Your task to perform on an android device: open the mobile data screen to see how much data has been used Image 0: 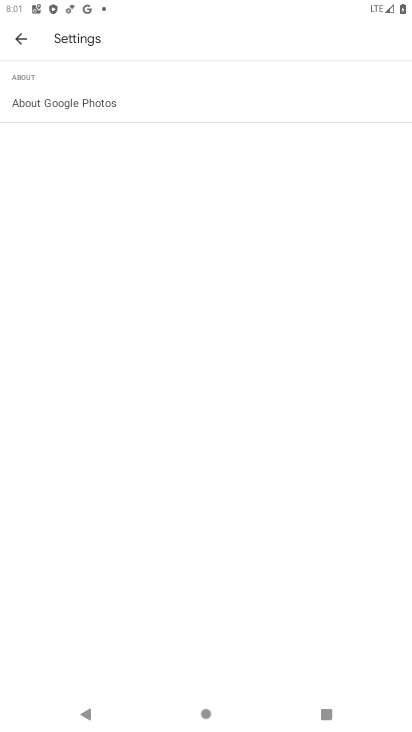
Step 0: click (22, 34)
Your task to perform on an android device: open the mobile data screen to see how much data has been used Image 1: 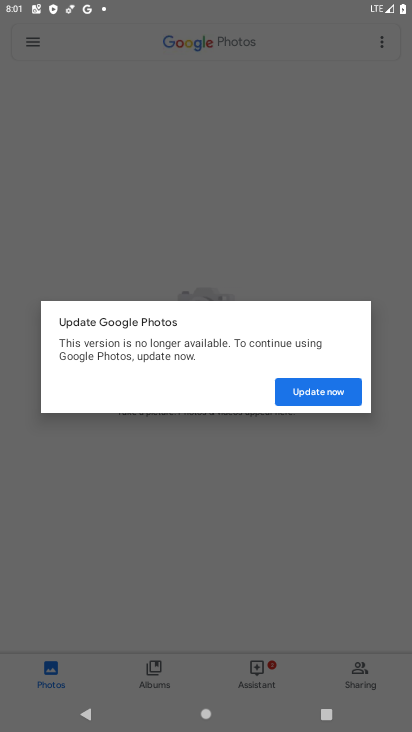
Step 1: click (289, 469)
Your task to perform on an android device: open the mobile data screen to see how much data has been used Image 2: 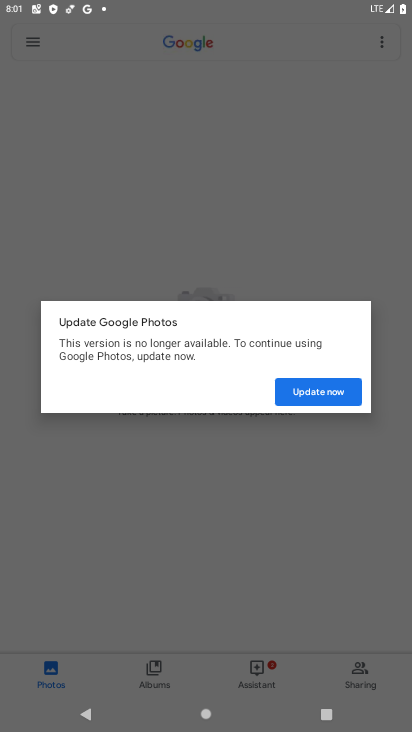
Step 2: click (287, 470)
Your task to perform on an android device: open the mobile data screen to see how much data has been used Image 3: 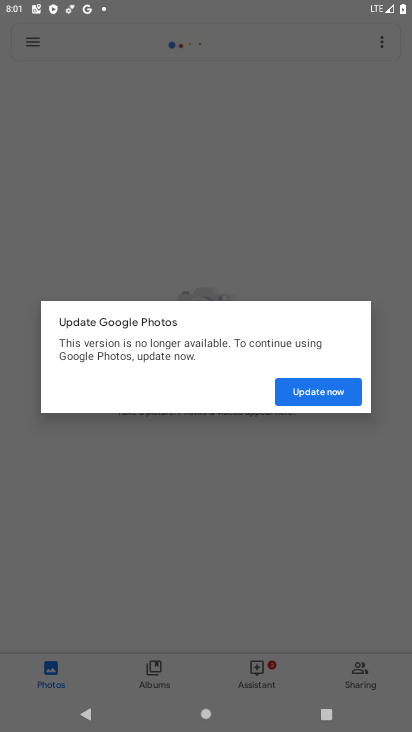
Step 3: click (287, 470)
Your task to perform on an android device: open the mobile data screen to see how much data has been used Image 4: 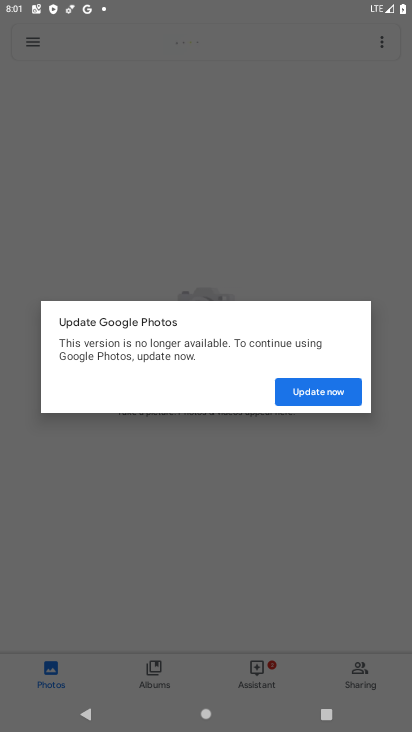
Step 4: click (287, 470)
Your task to perform on an android device: open the mobile data screen to see how much data has been used Image 5: 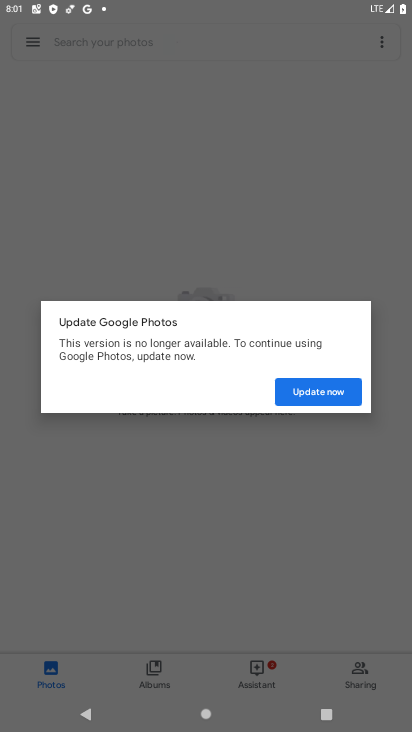
Step 5: click (286, 469)
Your task to perform on an android device: open the mobile data screen to see how much data has been used Image 6: 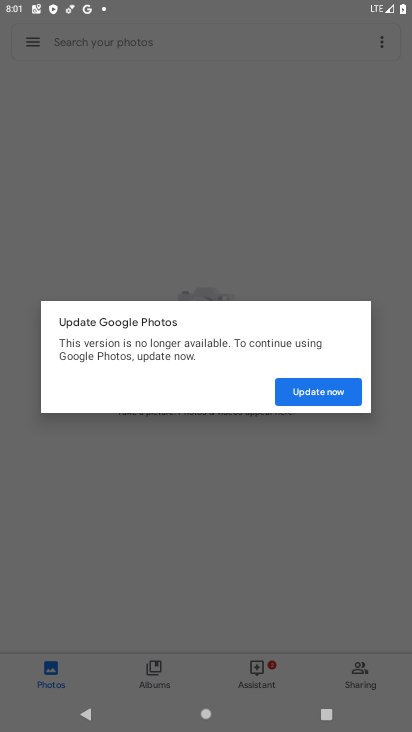
Step 6: press back button
Your task to perform on an android device: open the mobile data screen to see how much data has been used Image 7: 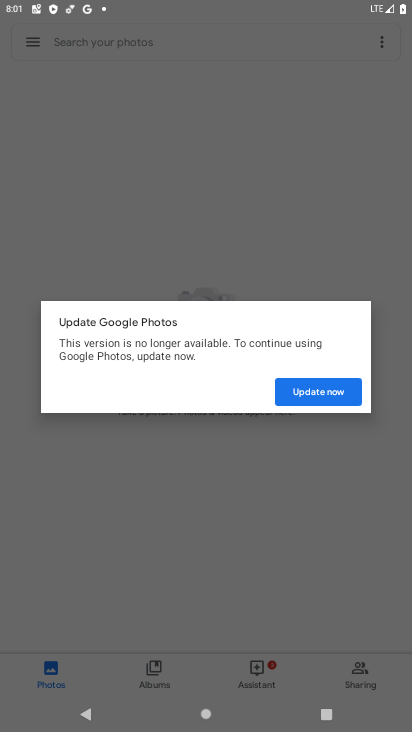
Step 7: click (212, 198)
Your task to perform on an android device: open the mobile data screen to see how much data has been used Image 8: 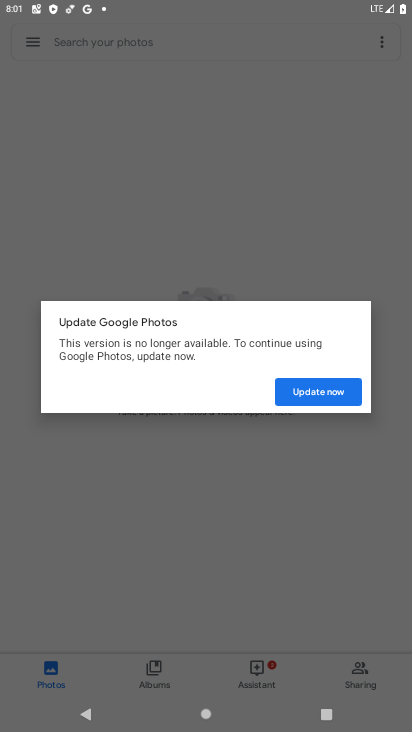
Step 8: click (211, 197)
Your task to perform on an android device: open the mobile data screen to see how much data has been used Image 9: 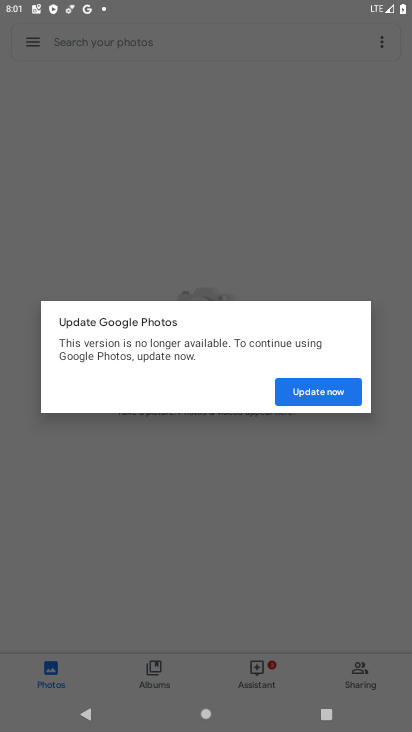
Step 9: click (211, 197)
Your task to perform on an android device: open the mobile data screen to see how much data has been used Image 10: 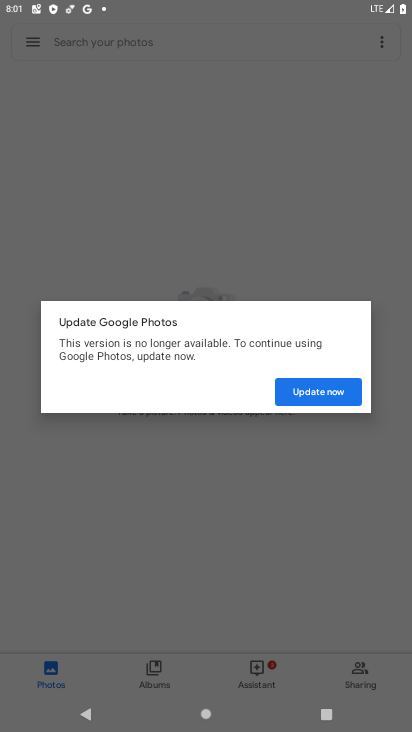
Step 10: click (210, 197)
Your task to perform on an android device: open the mobile data screen to see how much data has been used Image 11: 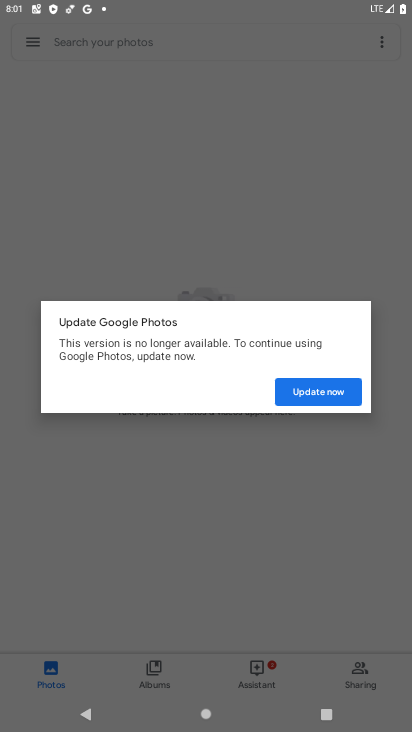
Step 11: press home button
Your task to perform on an android device: open the mobile data screen to see how much data has been used Image 12: 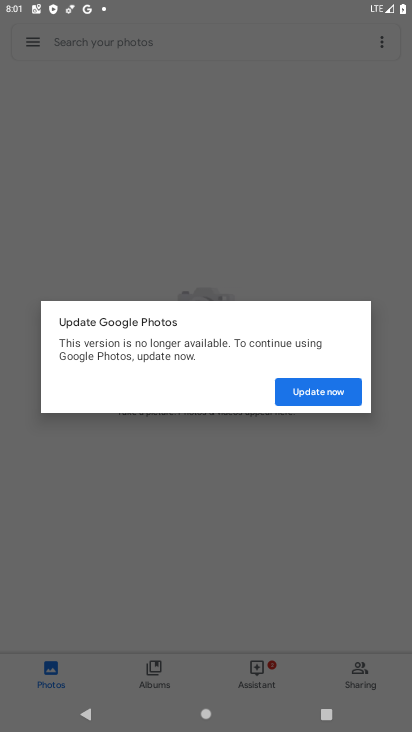
Step 12: press home button
Your task to perform on an android device: open the mobile data screen to see how much data has been used Image 13: 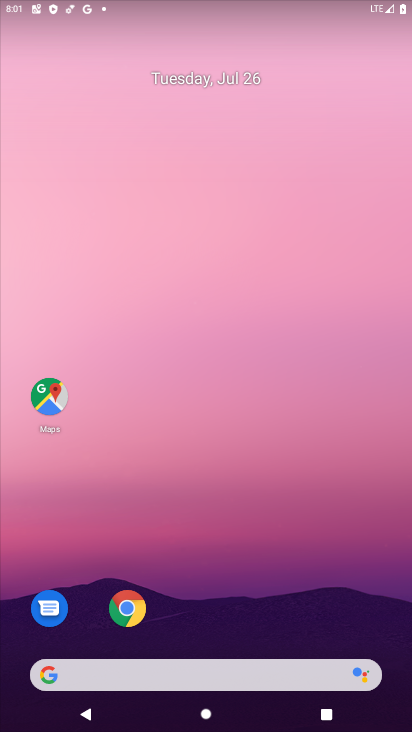
Step 13: drag from (255, 579) to (170, 153)
Your task to perform on an android device: open the mobile data screen to see how much data has been used Image 14: 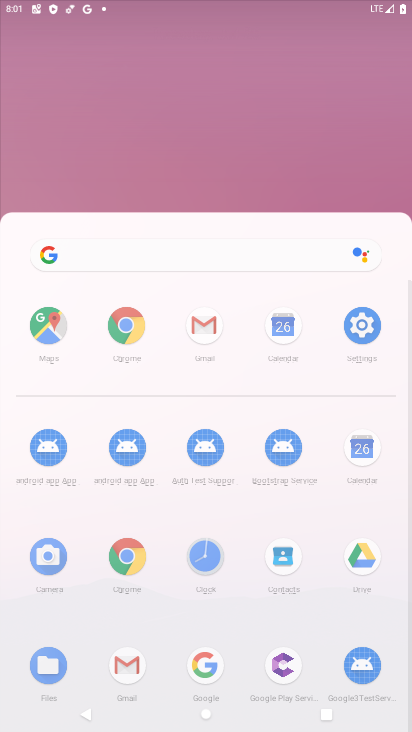
Step 14: drag from (219, 496) to (219, 148)
Your task to perform on an android device: open the mobile data screen to see how much data has been used Image 15: 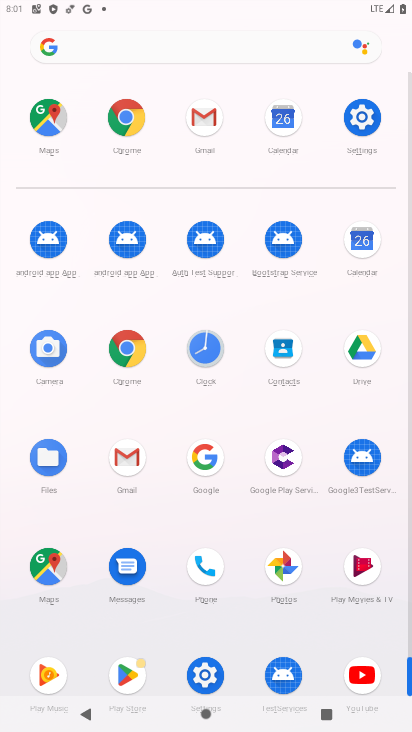
Step 15: click (361, 113)
Your task to perform on an android device: open the mobile data screen to see how much data has been used Image 16: 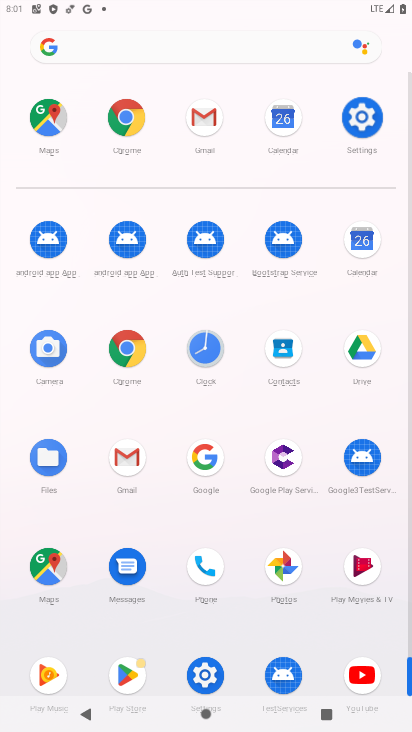
Step 16: click (362, 113)
Your task to perform on an android device: open the mobile data screen to see how much data has been used Image 17: 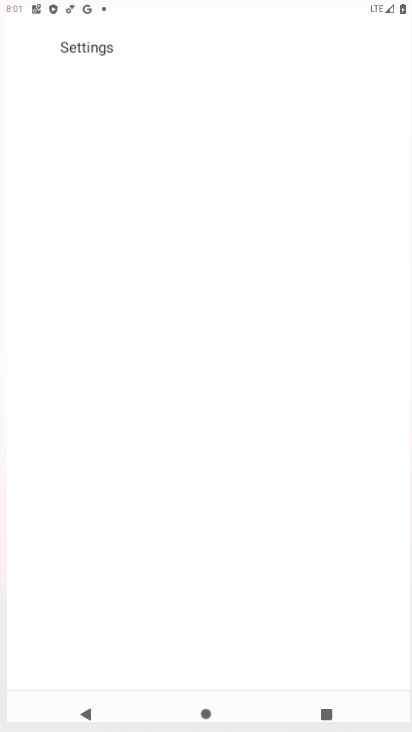
Step 17: click (362, 113)
Your task to perform on an android device: open the mobile data screen to see how much data has been used Image 18: 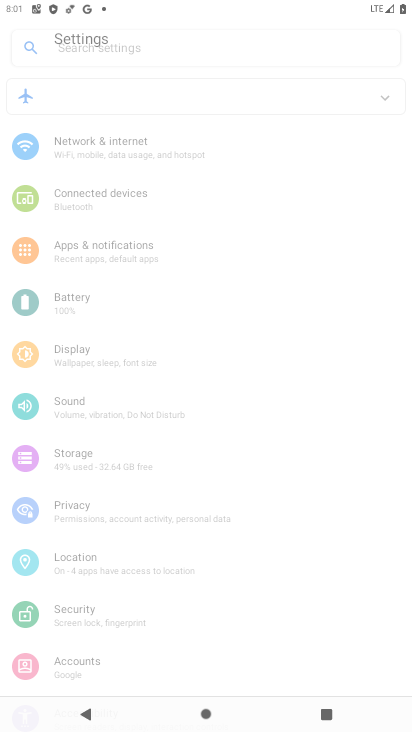
Step 18: click (362, 113)
Your task to perform on an android device: open the mobile data screen to see how much data has been used Image 19: 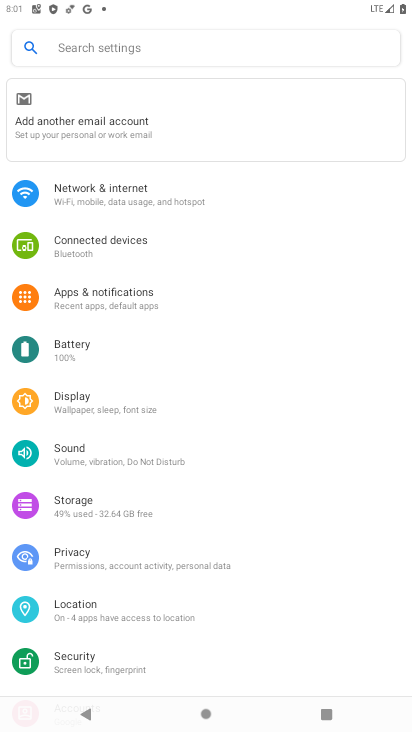
Step 19: click (97, 193)
Your task to perform on an android device: open the mobile data screen to see how much data has been used Image 20: 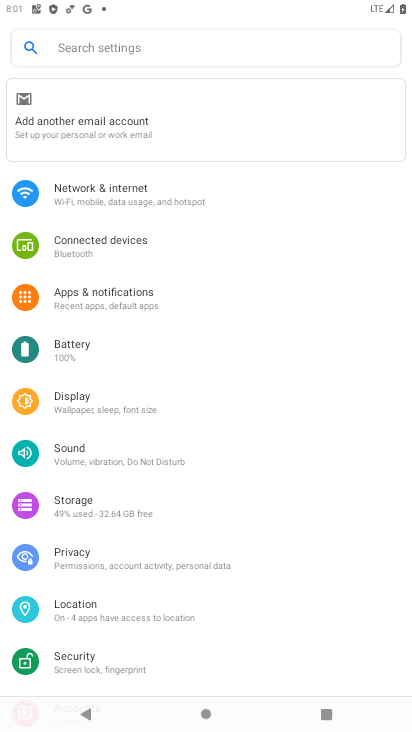
Step 20: click (95, 197)
Your task to perform on an android device: open the mobile data screen to see how much data has been used Image 21: 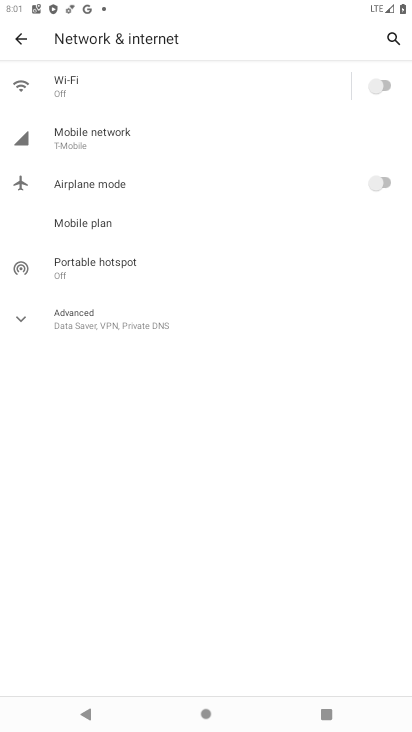
Step 21: click (63, 137)
Your task to perform on an android device: open the mobile data screen to see how much data has been used Image 22: 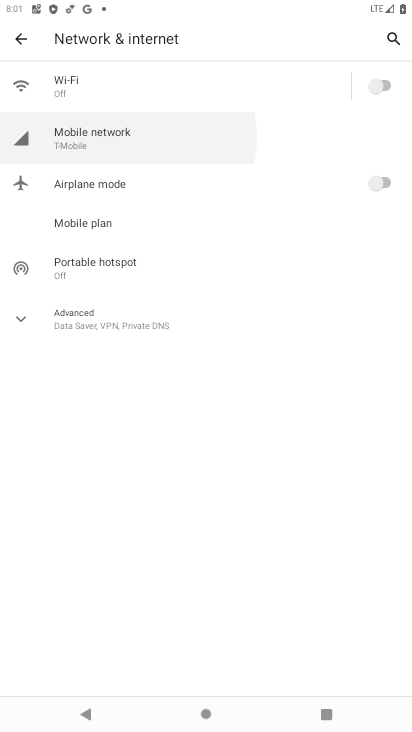
Step 22: click (62, 135)
Your task to perform on an android device: open the mobile data screen to see how much data has been used Image 23: 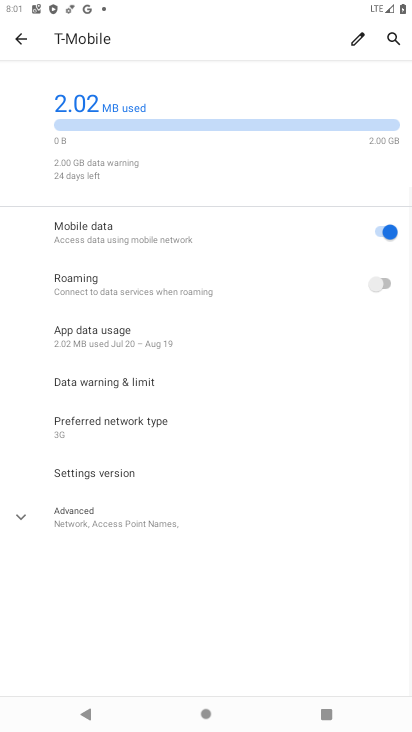
Step 23: click (19, 36)
Your task to perform on an android device: open the mobile data screen to see how much data has been used Image 24: 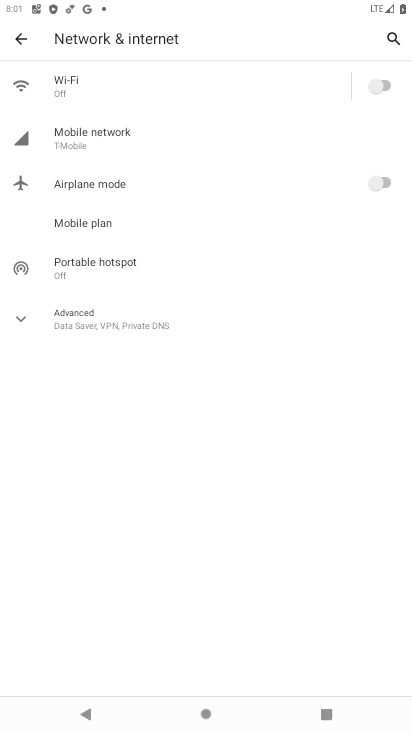
Step 24: click (375, 84)
Your task to perform on an android device: open the mobile data screen to see how much data has been used Image 25: 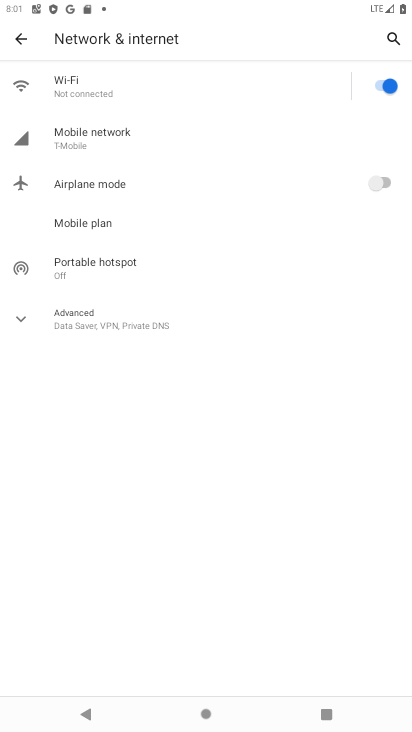
Step 25: task complete